Your task to perform on an android device: turn pop-ups on in chrome Image 0: 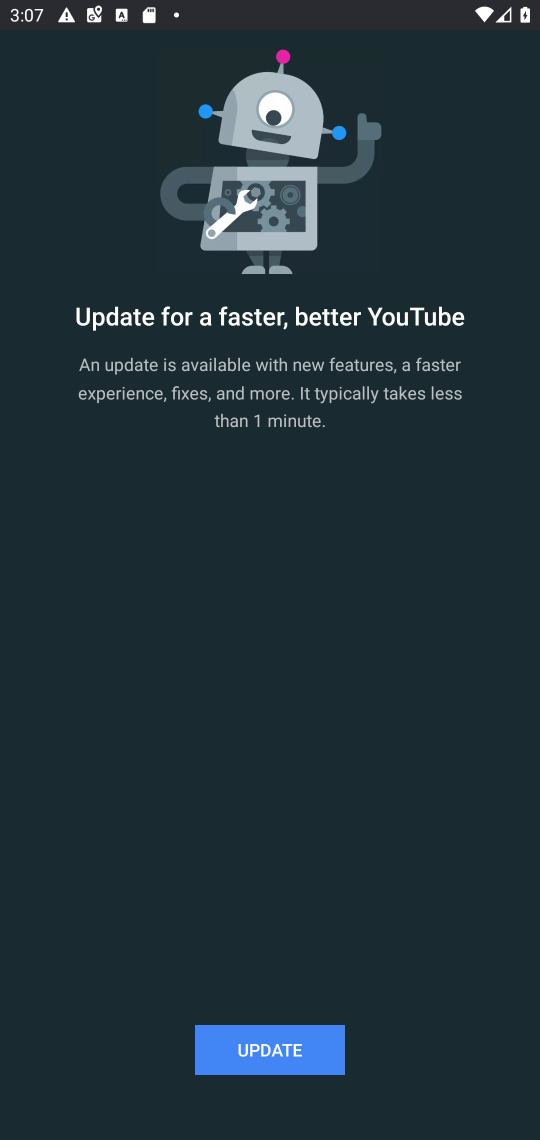
Step 0: press home button
Your task to perform on an android device: turn pop-ups on in chrome Image 1: 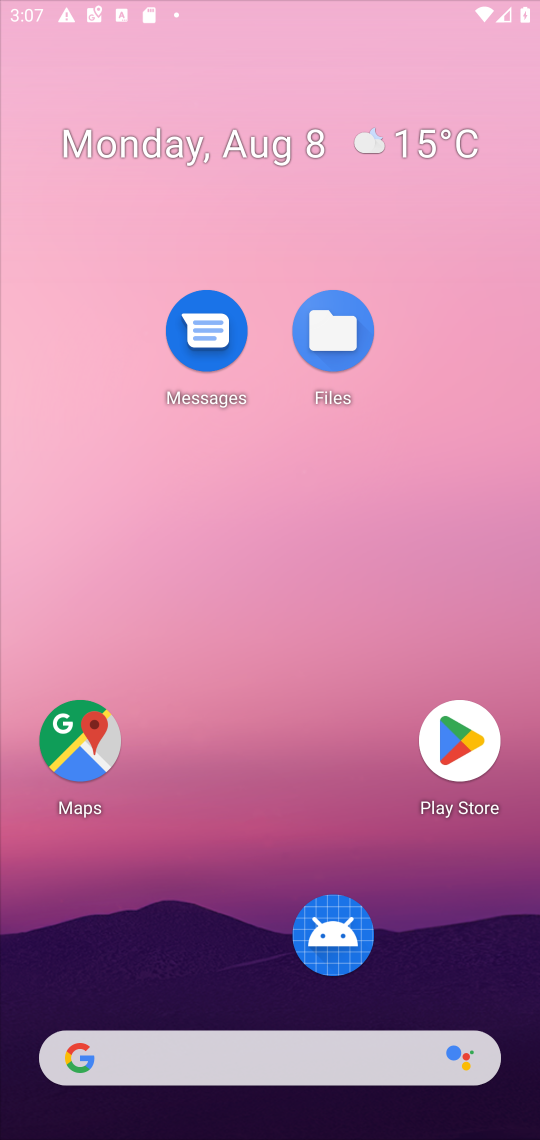
Step 1: press home button
Your task to perform on an android device: turn pop-ups on in chrome Image 2: 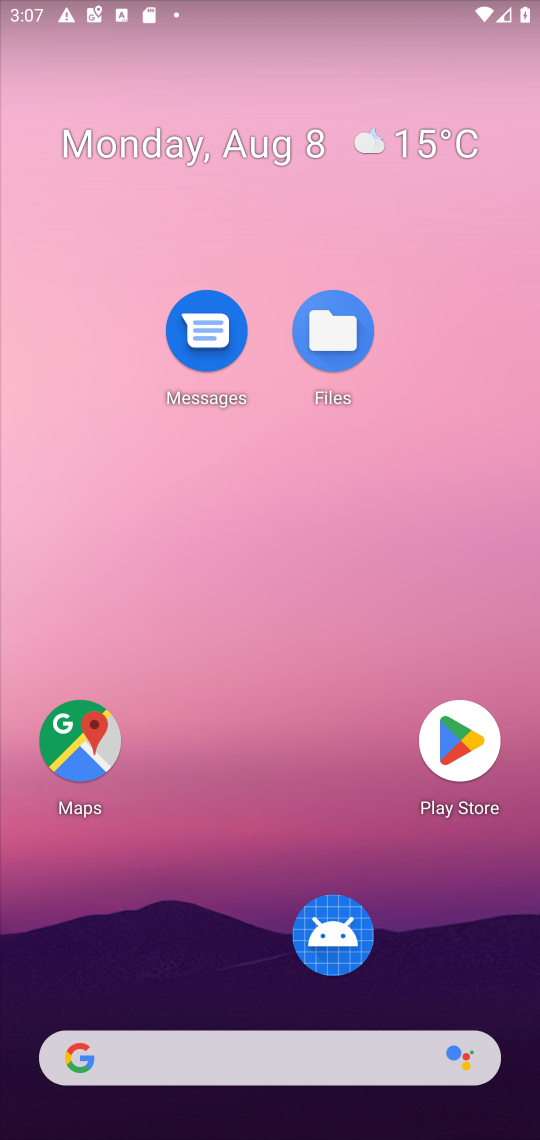
Step 2: drag from (309, 1047) to (376, 163)
Your task to perform on an android device: turn pop-ups on in chrome Image 3: 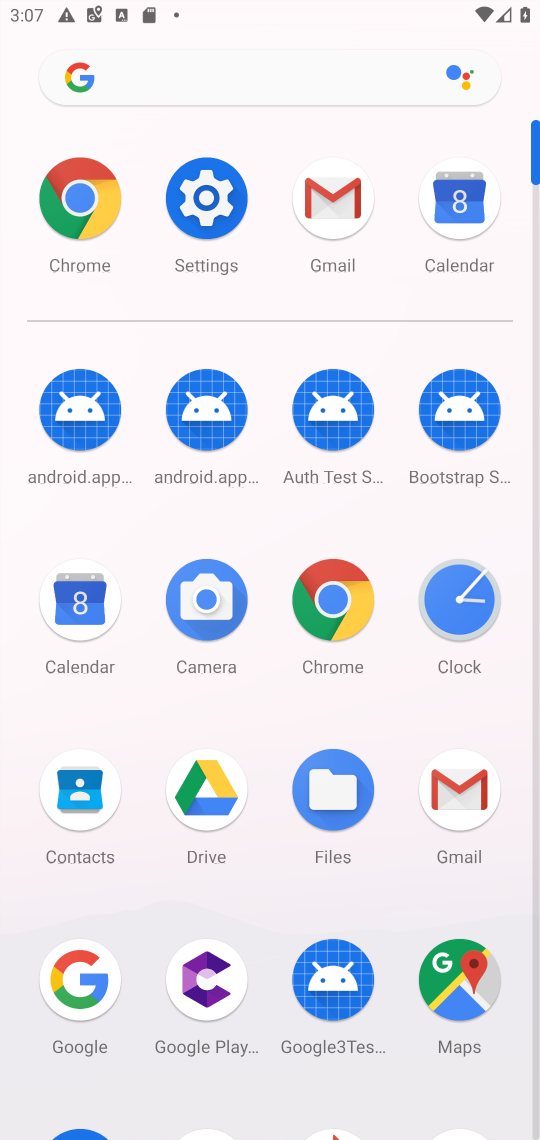
Step 3: click (323, 607)
Your task to perform on an android device: turn pop-ups on in chrome Image 4: 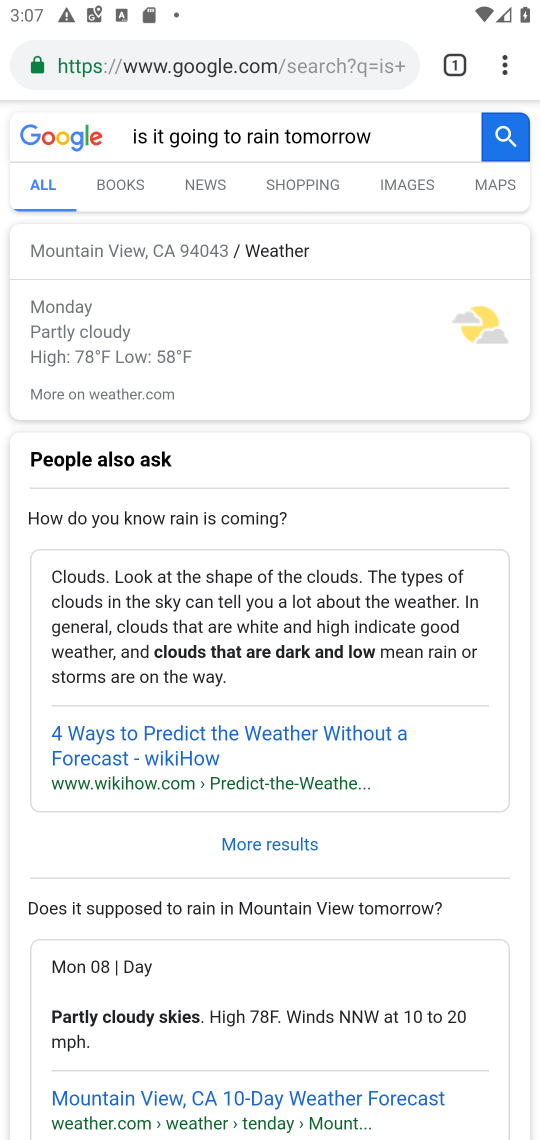
Step 4: click (504, 60)
Your task to perform on an android device: turn pop-ups on in chrome Image 5: 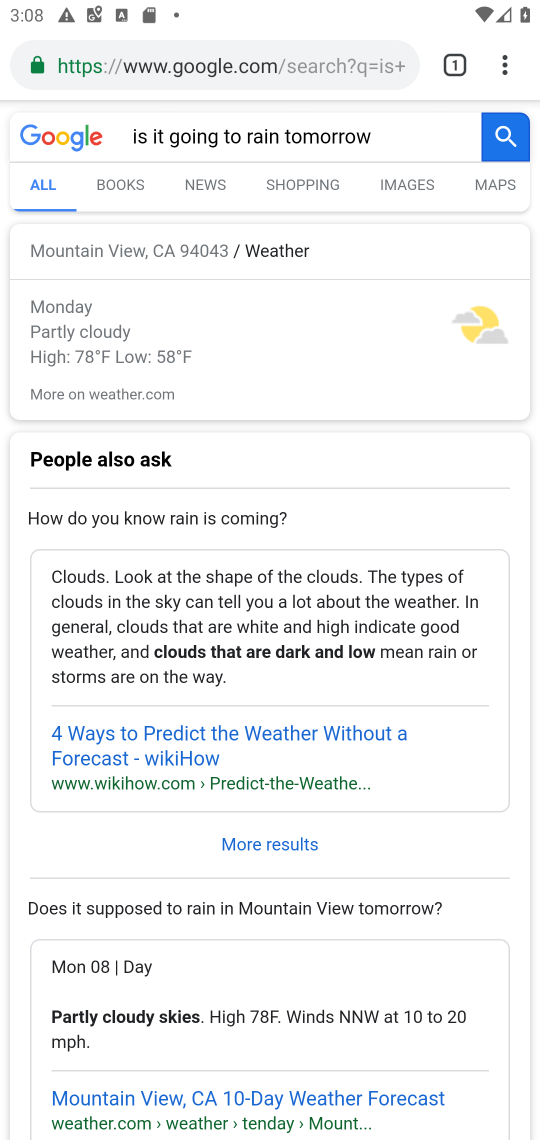
Step 5: drag from (504, 58) to (291, 726)
Your task to perform on an android device: turn pop-ups on in chrome Image 6: 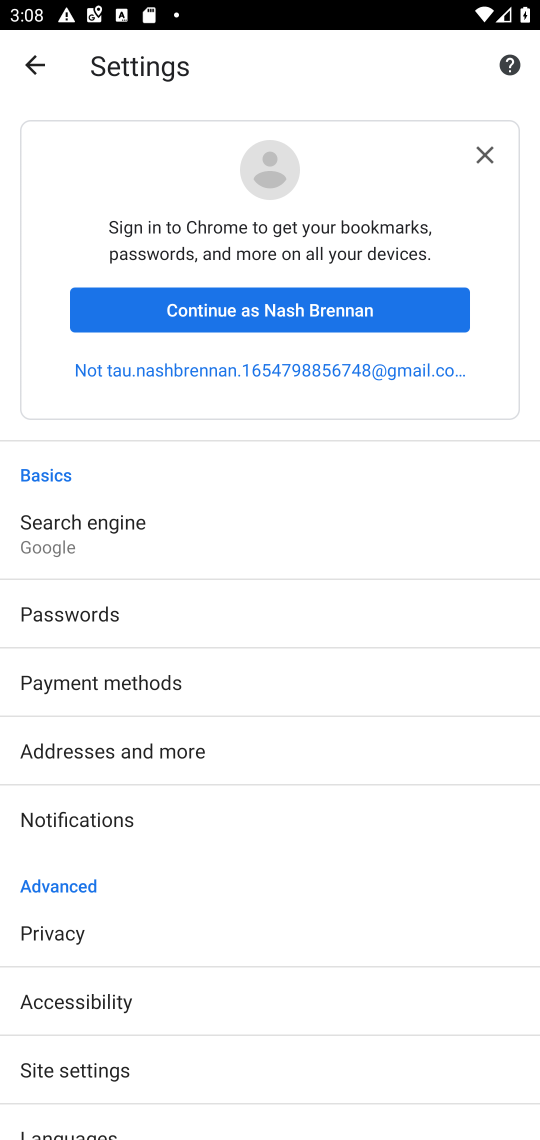
Step 6: drag from (288, 996) to (333, 529)
Your task to perform on an android device: turn pop-ups on in chrome Image 7: 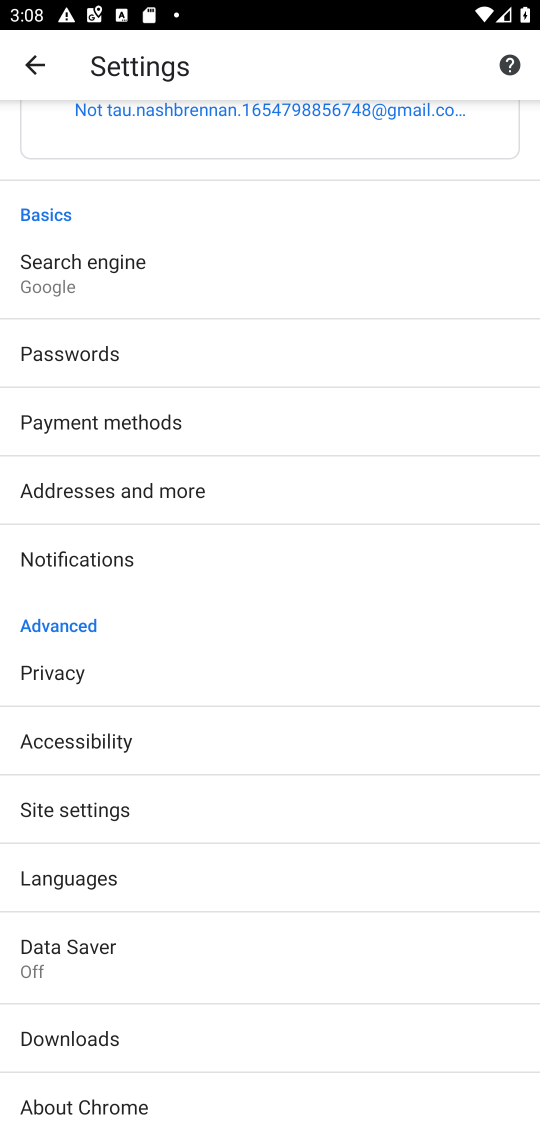
Step 7: click (123, 799)
Your task to perform on an android device: turn pop-ups on in chrome Image 8: 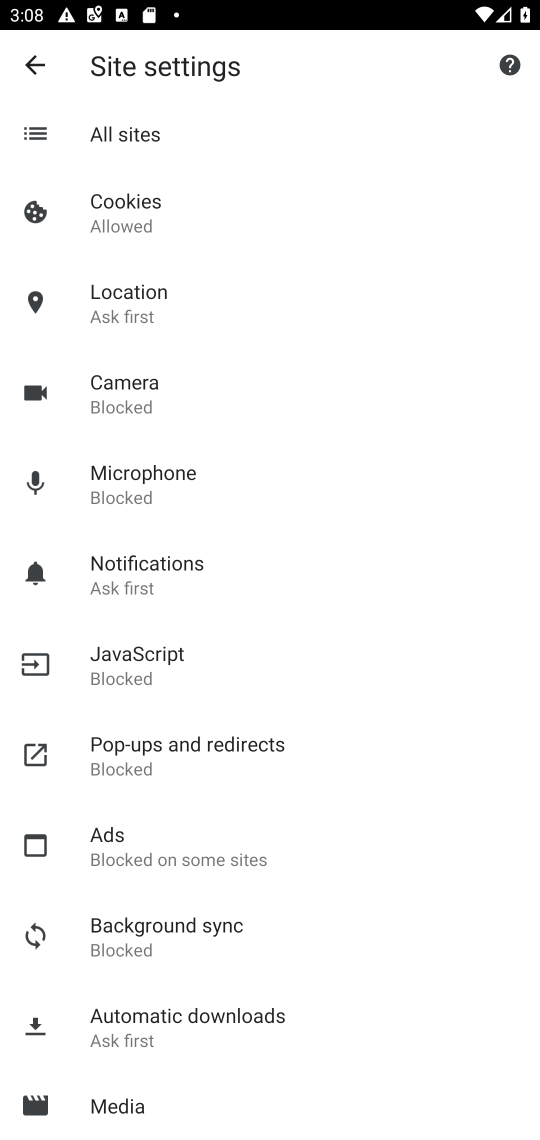
Step 8: click (161, 767)
Your task to perform on an android device: turn pop-ups on in chrome Image 9: 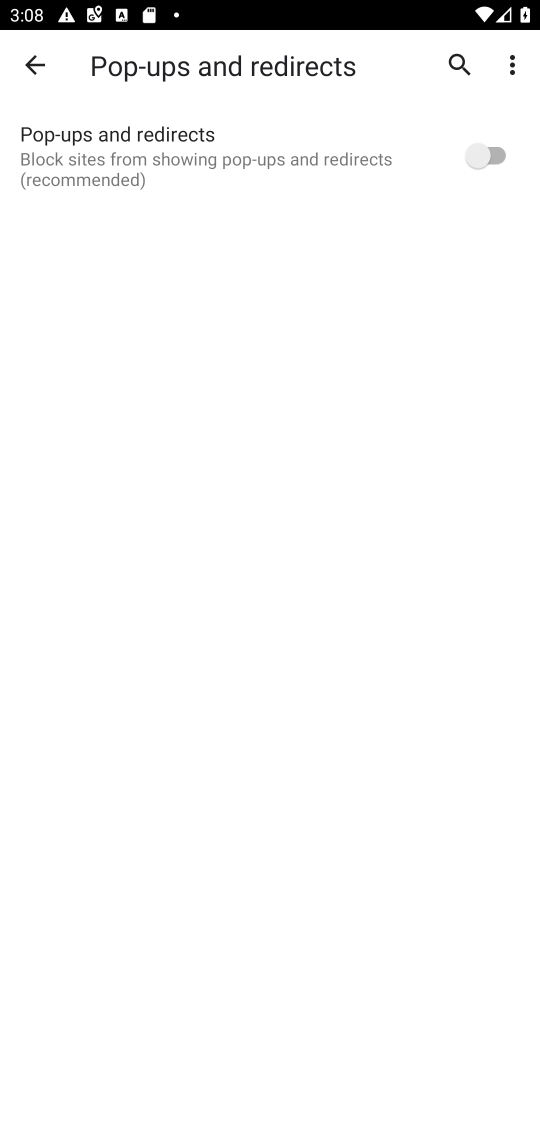
Step 9: task complete